Your task to perform on an android device: Search for Italian restaurants on Maps Image 0: 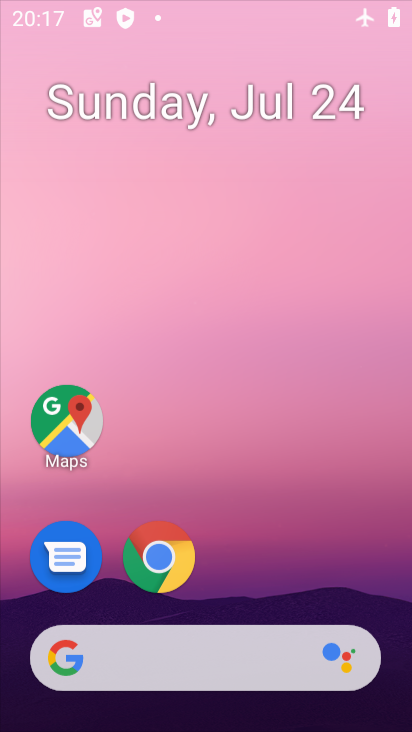
Step 0: press home button
Your task to perform on an android device: Search for Italian restaurants on Maps Image 1: 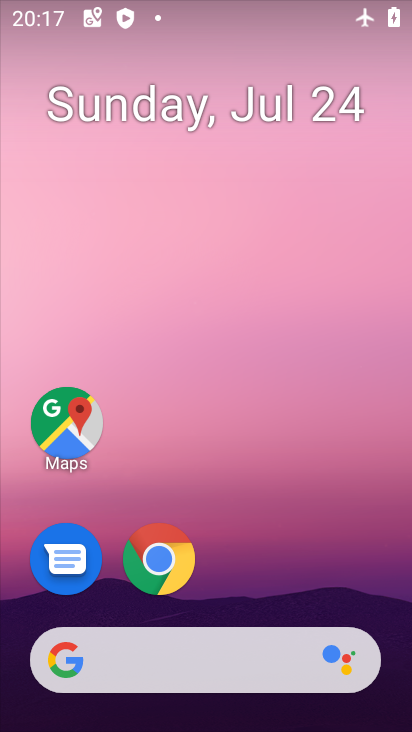
Step 1: drag from (371, 587) to (372, 84)
Your task to perform on an android device: Search for Italian restaurants on Maps Image 2: 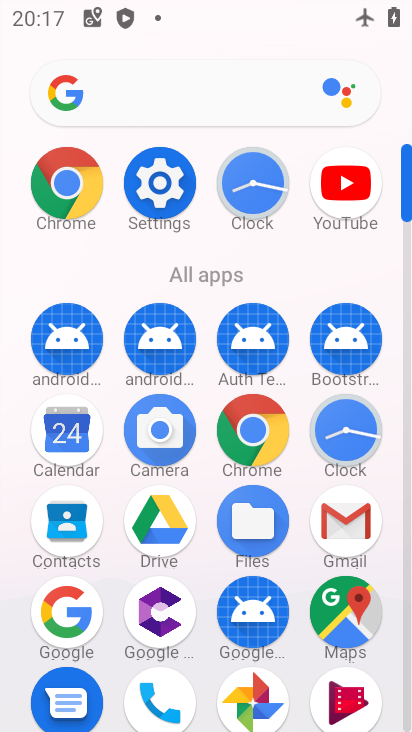
Step 2: click (344, 610)
Your task to perform on an android device: Search for Italian restaurants on Maps Image 3: 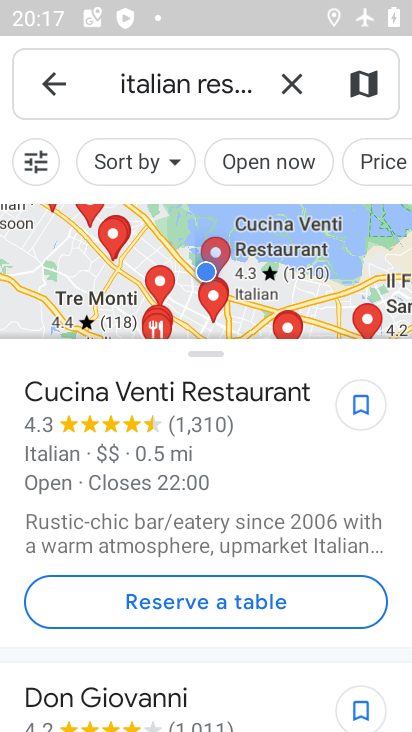
Step 3: task complete